Your task to perform on an android device: delete browsing data in the chrome app Image 0: 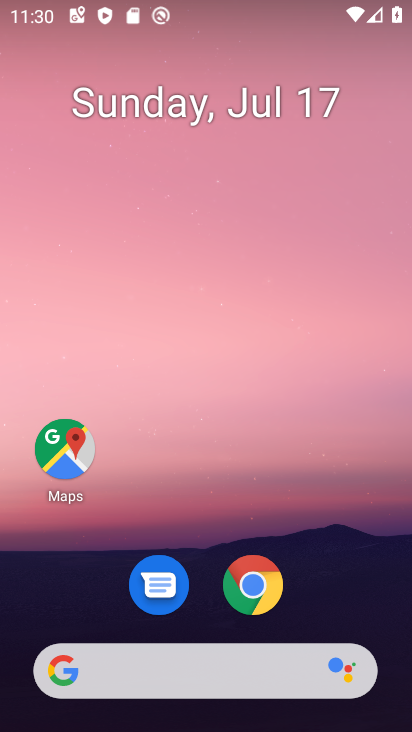
Step 0: drag from (260, 491) to (186, 0)
Your task to perform on an android device: delete browsing data in the chrome app Image 1: 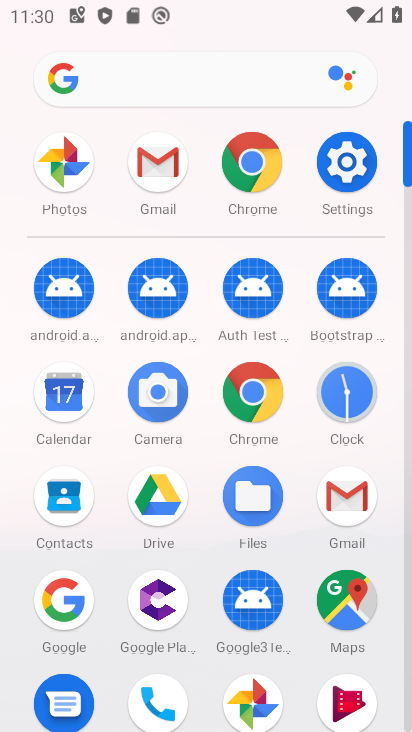
Step 1: click (257, 171)
Your task to perform on an android device: delete browsing data in the chrome app Image 2: 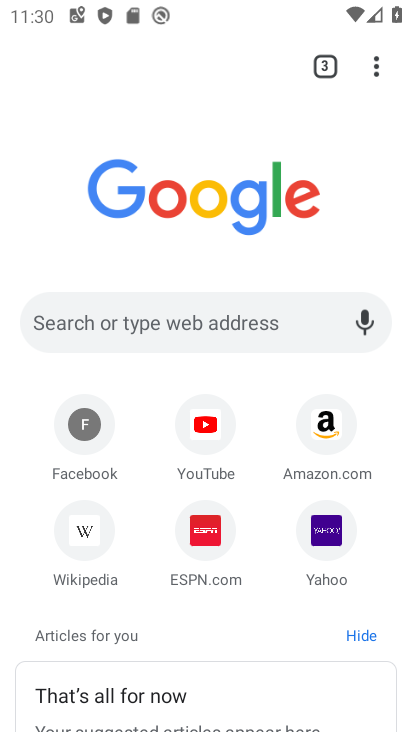
Step 2: click (378, 72)
Your task to perform on an android device: delete browsing data in the chrome app Image 3: 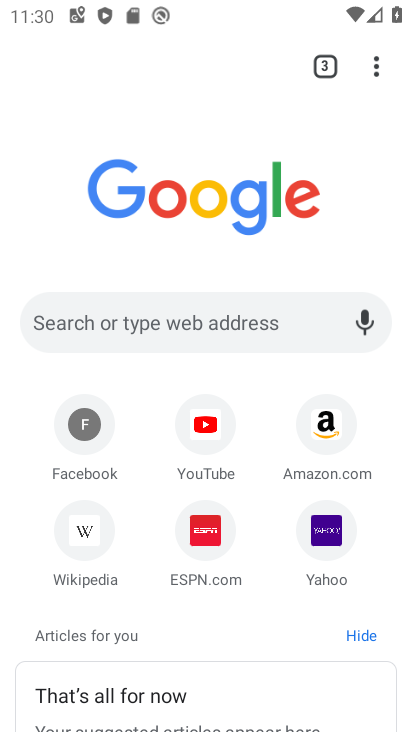
Step 3: click (378, 75)
Your task to perform on an android device: delete browsing data in the chrome app Image 4: 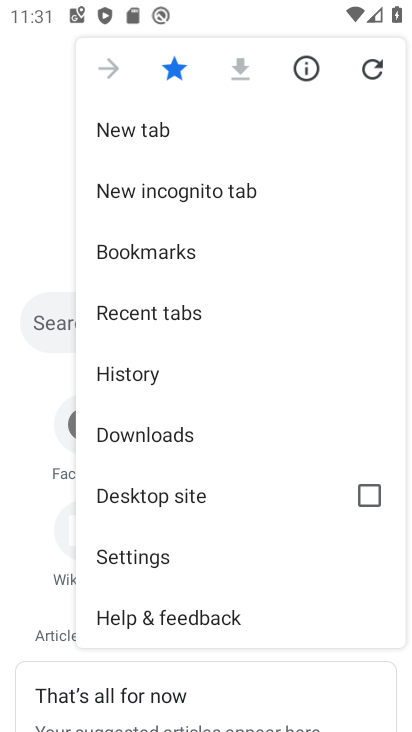
Step 4: click (145, 371)
Your task to perform on an android device: delete browsing data in the chrome app Image 5: 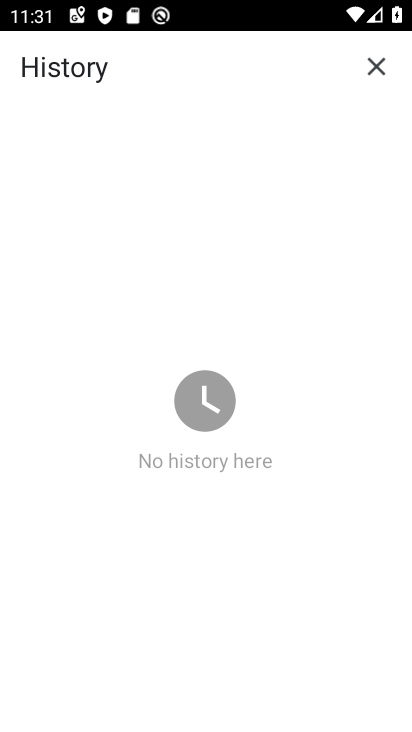
Step 5: task complete